Your task to perform on an android device: Search for "duracell triple a" on target, select the first entry, and add it to the cart. Image 0: 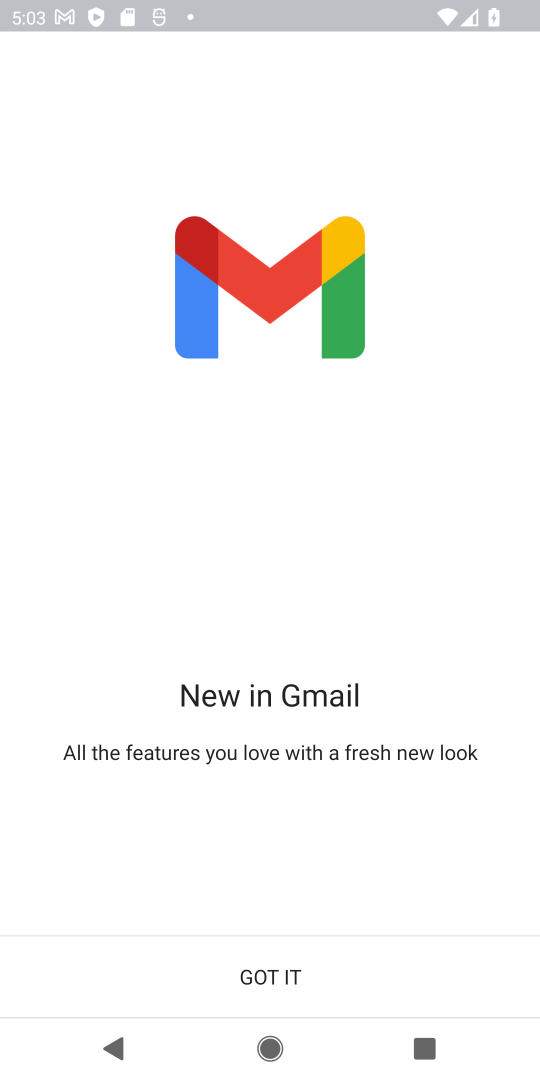
Step 0: press home button
Your task to perform on an android device: Search for "duracell triple a" on target, select the first entry, and add it to the cart. Image 1: 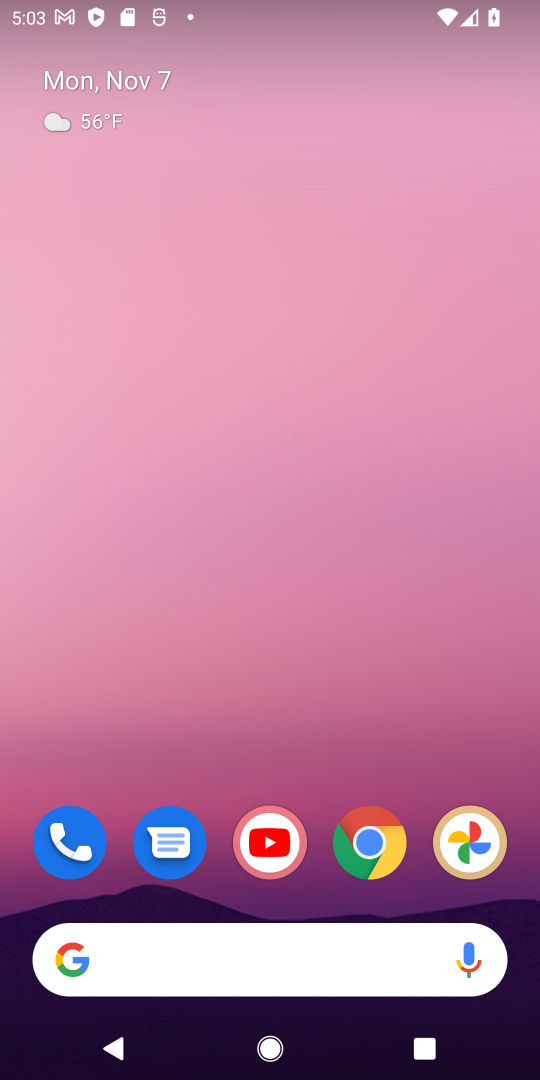
Step 1: click (372, 837)
Your task to perform on an android device: Search for "duracell triple a" on target, select the first entry, and add it to the cart. Image 2: 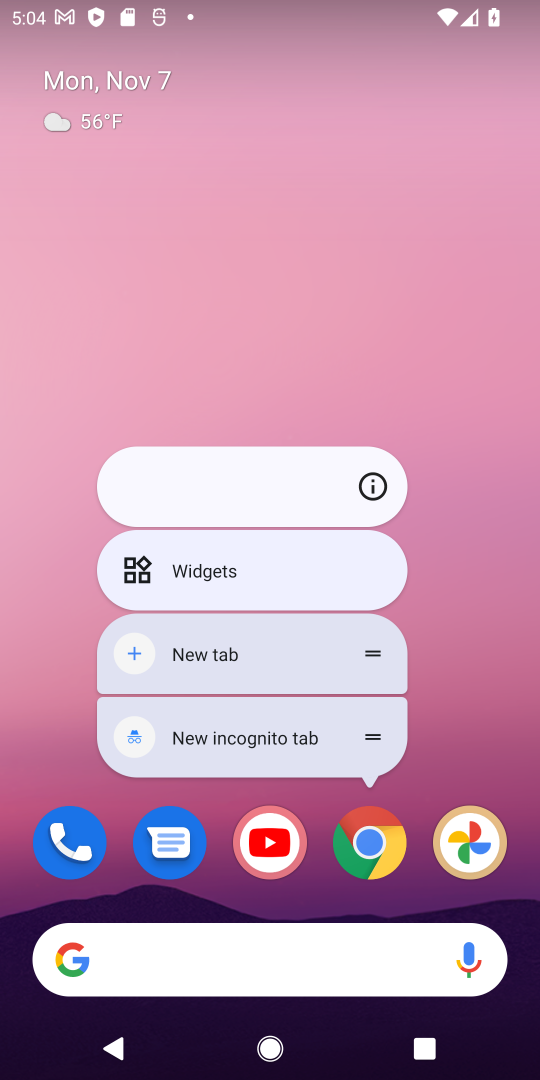
Step 2: click (372, 842)
Your task to perform on an android device: Search for "duracell triple a" on target, select the first entry, and add it to the cart. Image 3: 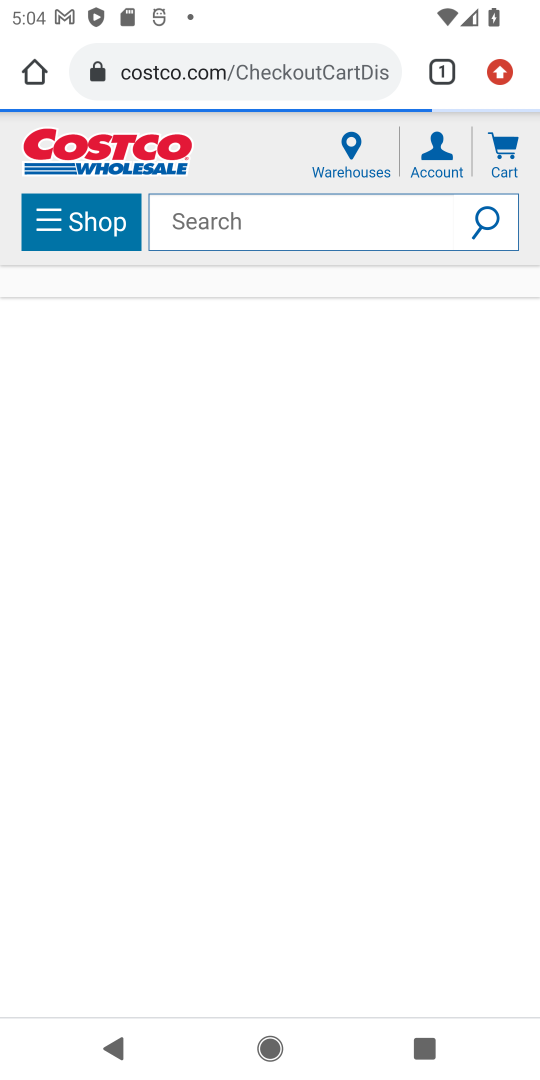
Step 3: click (291, 70)
Your task to perform on an android device: Search for "duracell triple a" on target, select the first entry, and add it to the cart. Image 4: 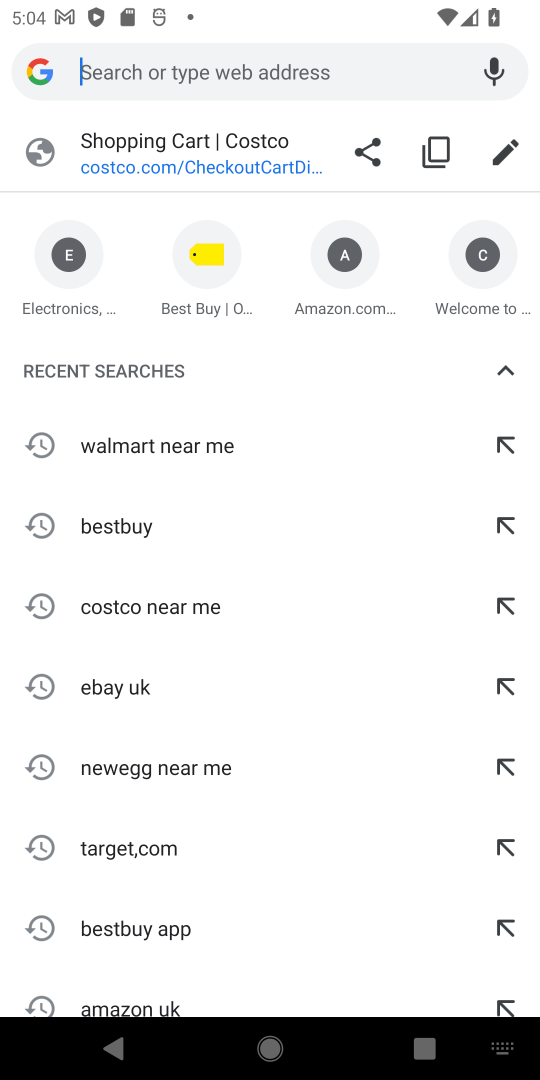
Step 4: click (95, 849)
Your task to perform on an android device: Search for "duracell triple a" on target, select the first entry, and add it to the cart. Image 5: 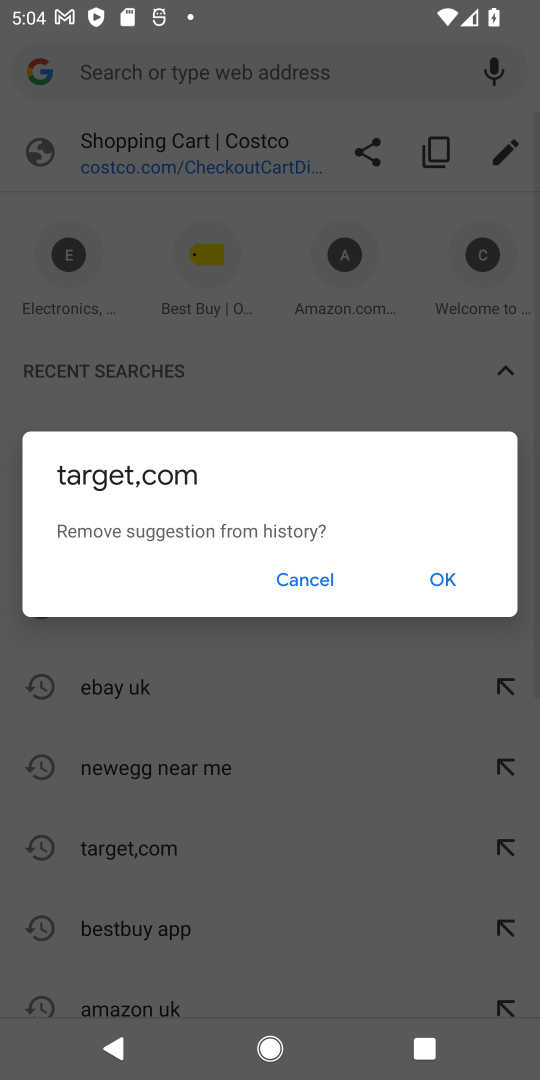
Step 5: click (309, 588)
Your task to perform on an android device: Search for "duracell triple a" on target, select the first entry, and add it to the cart. Image 6: 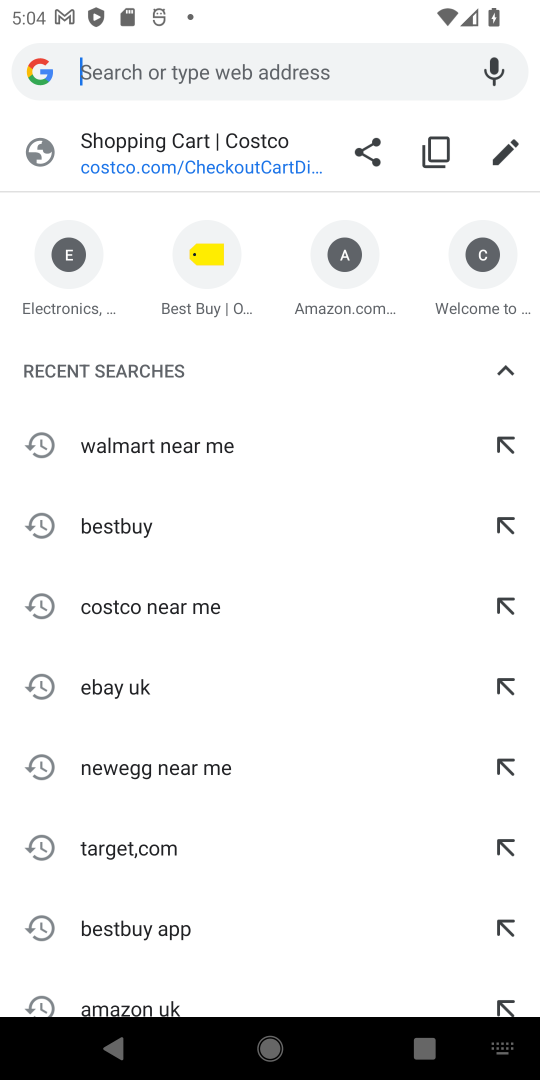
Step 6: click (104, 843)
Your task to perform on an android device: Search for "duracell triple a" on target, select the first entry, and add it to the cart. Image 7: 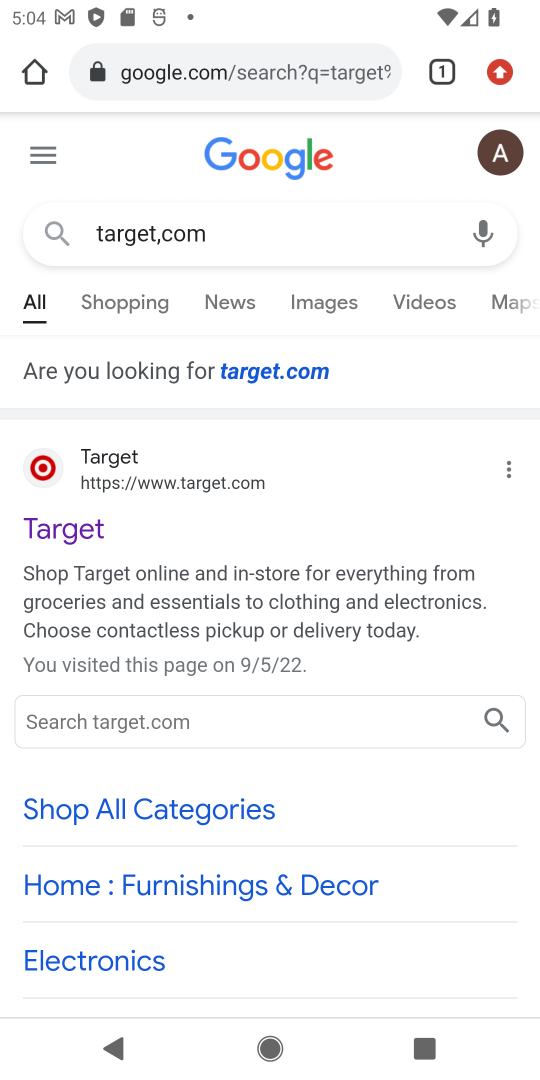
Step 7: click (94, 529)
Your task to perform on an android device: Search for "duracell triple a" on target, select the first entry, and add it to the cart. Image 8: 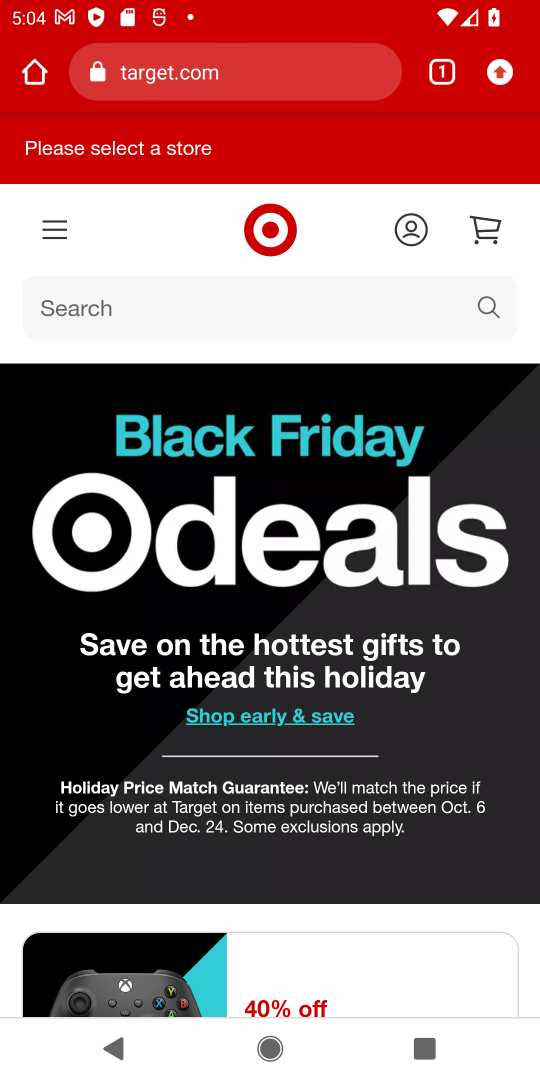
Step 8: click (122, 311)
Your task to perform on an android device: Search for "duracell triple a" on target, select the first entry, and add it to the cart. Image 9: 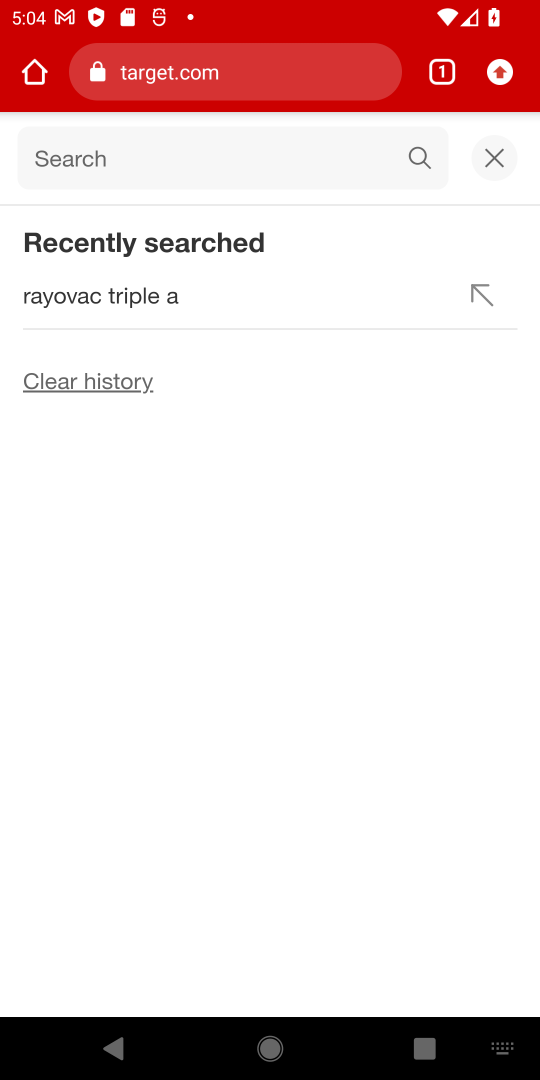
Step 9: click (37, 149)
Your task to perform on an android device: Search for "duracell triple a" on target, select the first entry, and add it to the cart. Image 10: 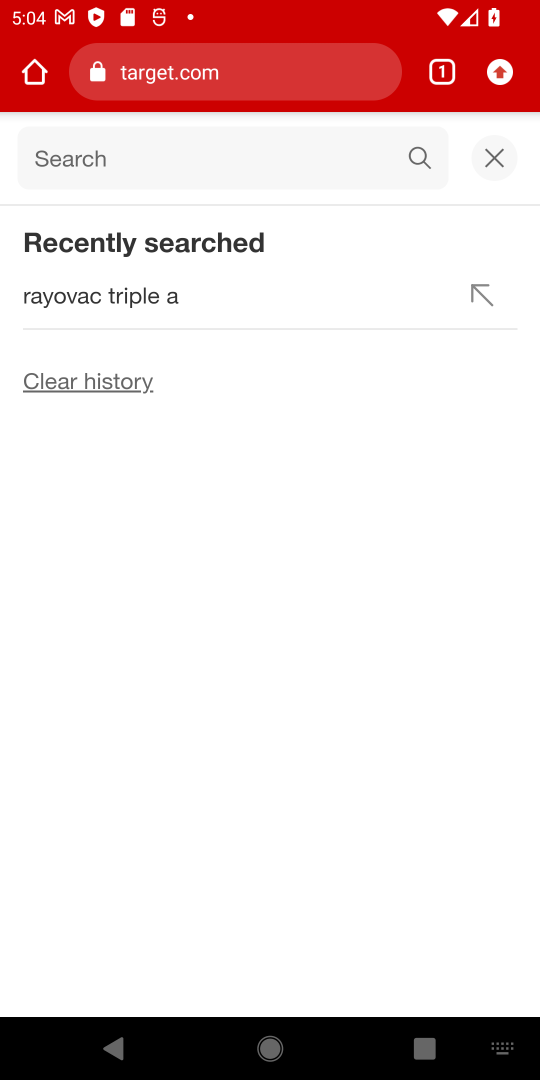
Step 10: type "duracell triple a"
Your task to perform on an android device: Search for "duracell triple a" on target, select the first entry, and add it to the cart. Image 11: 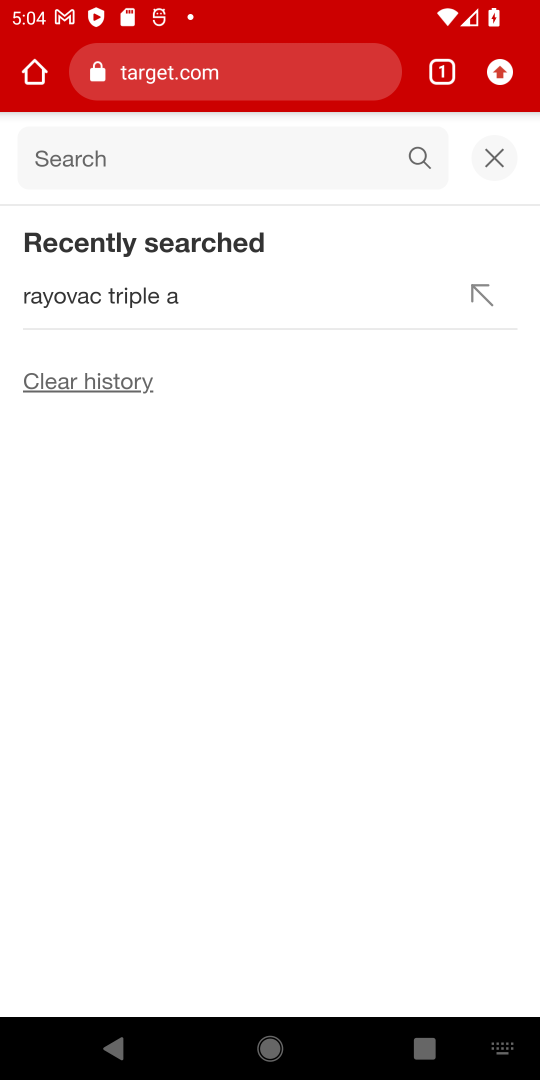
Step 11: press enter
Your task to perform on an android device: Search for "duracell triple a" on target, select the first entry, and add it to the cart. Image 12: 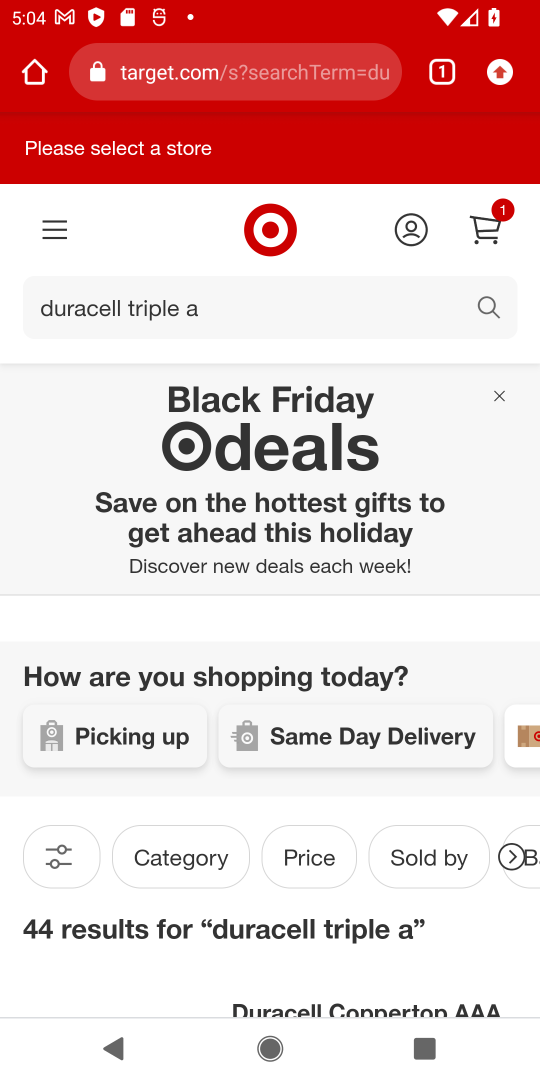
Step 12: drag from (278, 892) to (354, 598)
Your task to perform on an android device: Search for "duracell triple a" on target, select the first entry, and add it to the cart. Image 13: 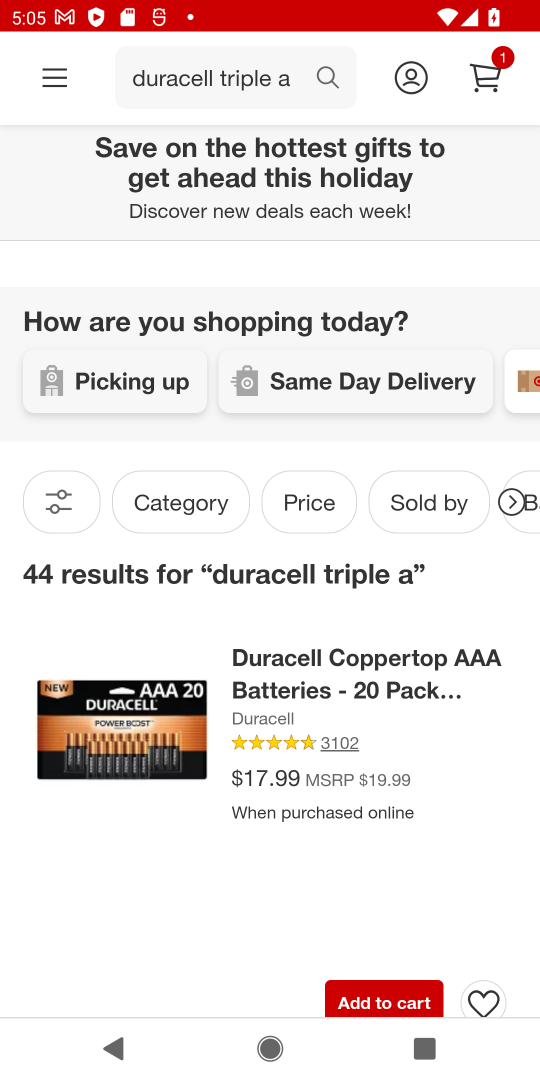
Step 13: drag from (308, 859) to (419, 562)
Your task to perform on an android device: Search for "duracell triple a" on target, select the first entry, and add it to the cart. Image 14: 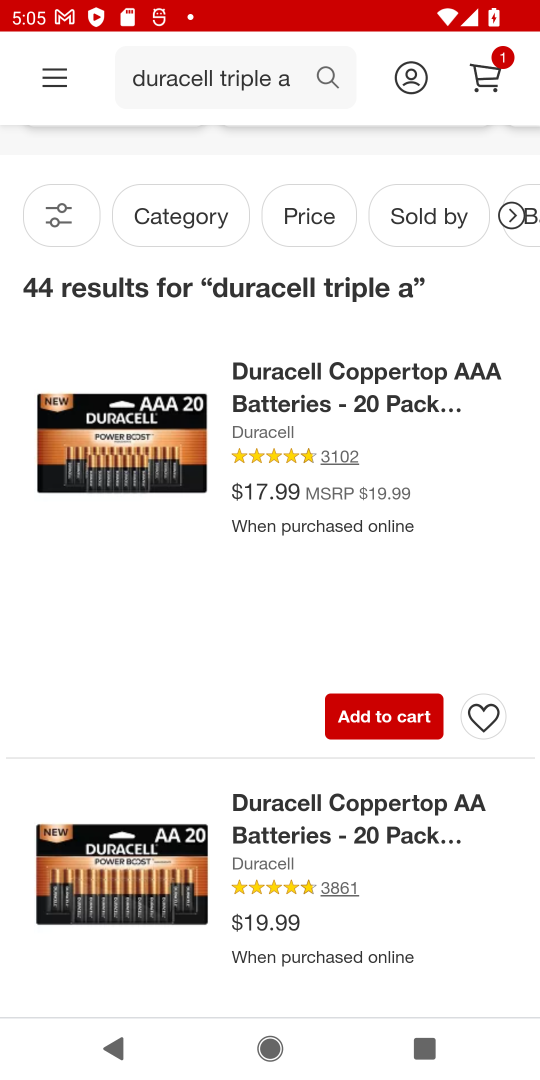
Step 14: click (370, 716)
Your task to perform on an android device: Search for "duracell triple a" on target, select the first entry, and add it to the cart. Image 15: 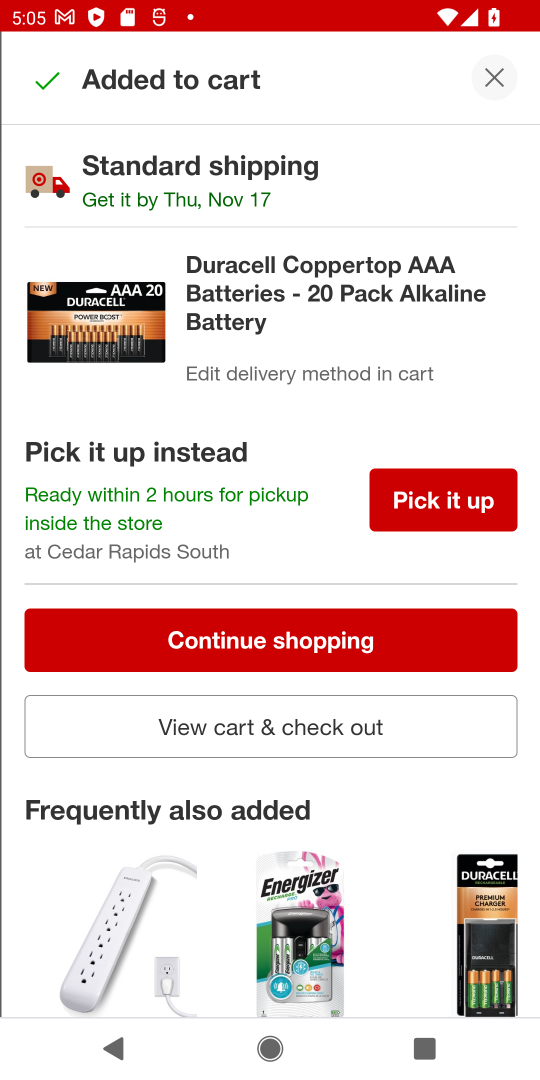
Step 15: click (258, 731)
Your task to perform on an android device: Search for "duracell triple a" on target, select the first entry, and add it to the cart. Image 16: 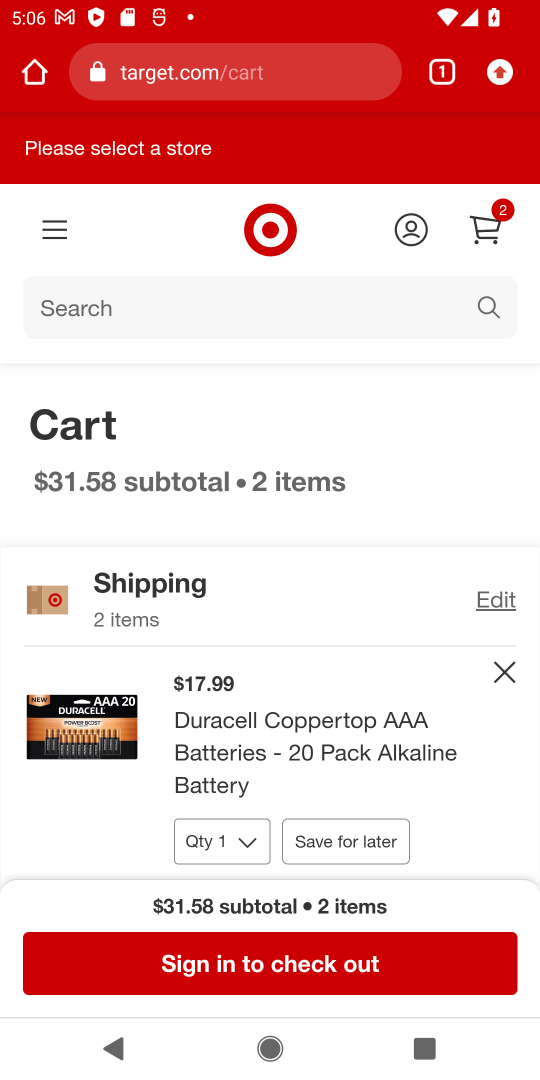
Step 16: task complete